Your task to perform on an android device: delete browsing data in the chrome app Image 0: 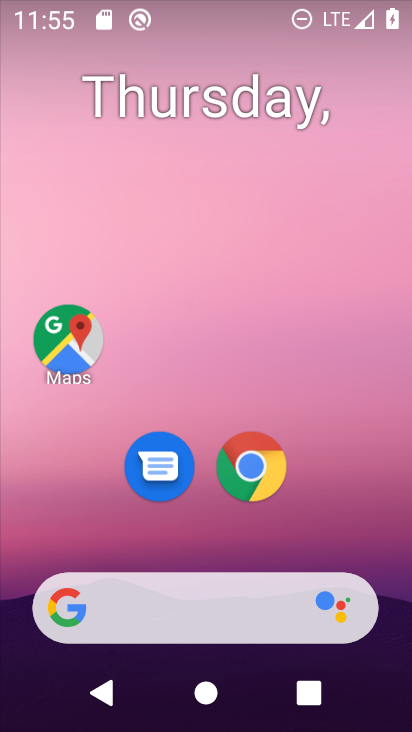
Step 0: drag from (329, 565) to (333, 58)
Your task to perform on an android device: delete browsing data in the chrome app Image 1: 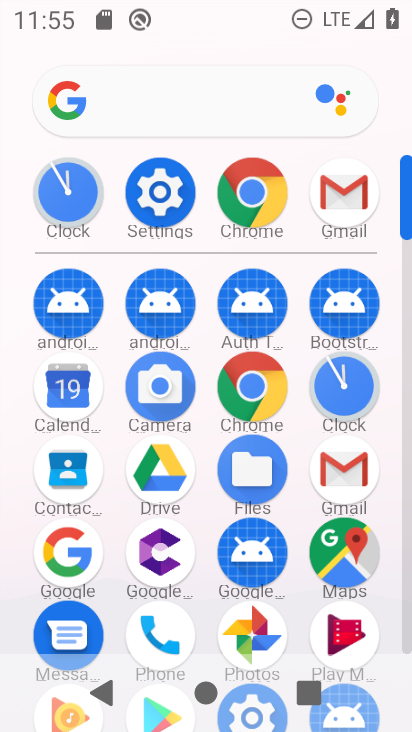
Step 1: click (244, 388)
Your task to perform on an android device: delete browsing data in the chrome app Image 2: 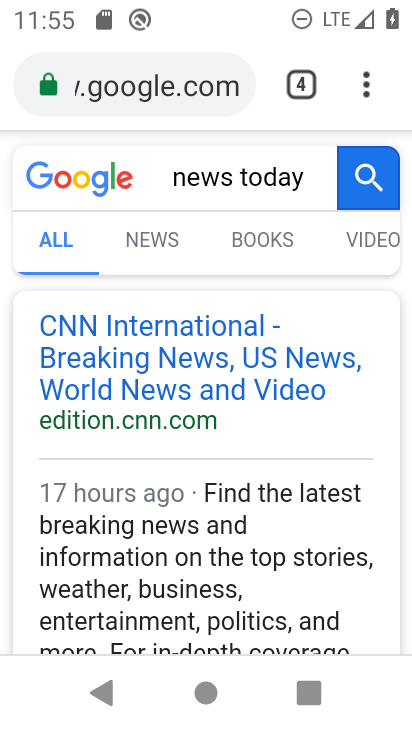
Step 2: drag from (375, 84) to (148, 487)
Your task to perform on an android device: delete browsing data in the chrome app Image 3: 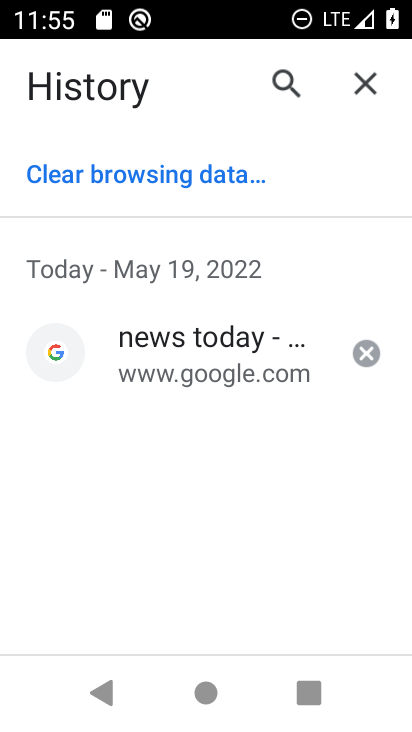
Step 3: drag from (195, 608) to (210, 194)
Your task to perform on an android device: delete browsing data in the chrome app Image 4: 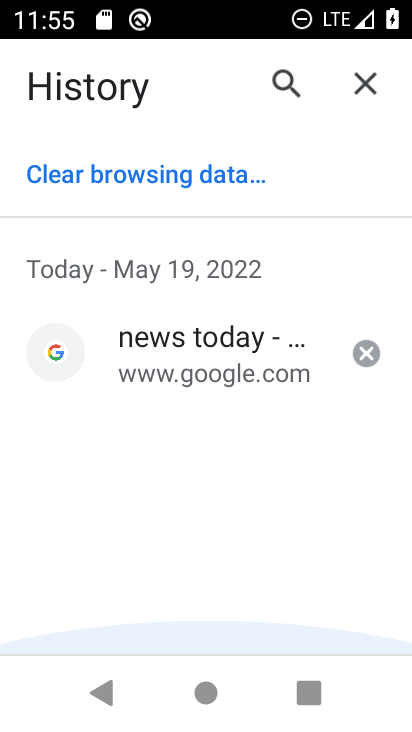
Step 4: click (204, 178)
Your task to perform on an android device: delete browsing data in the chrome app Image 5: 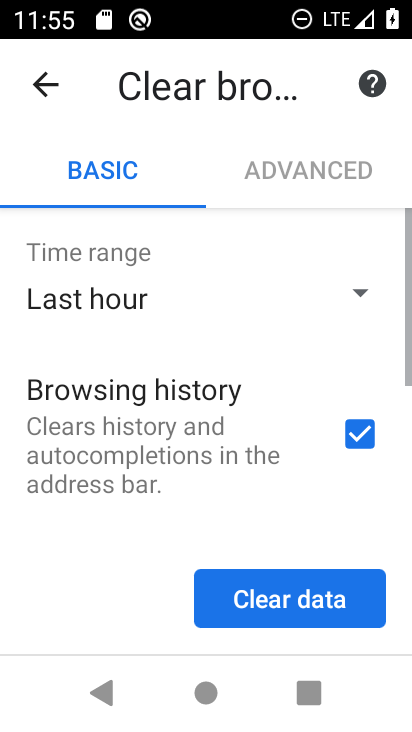
Step 5: click (329, 611)
Your task to perform on an android device: delete browsing data in the chrome app Image 6: 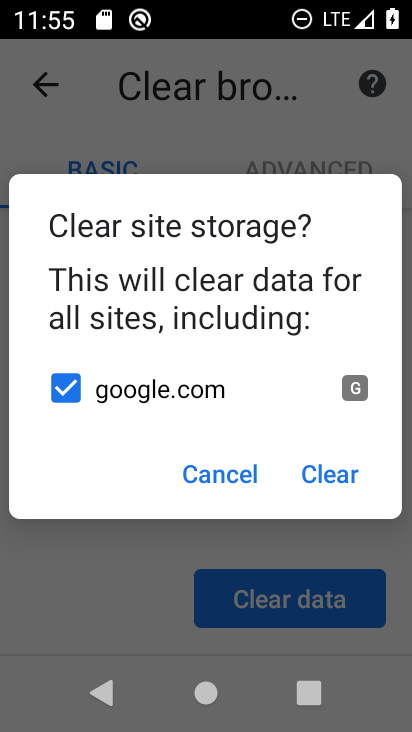
Step 6: click (304, 467)
Your task to perform on an android device: delete browsing data in the chrome app Image 7: 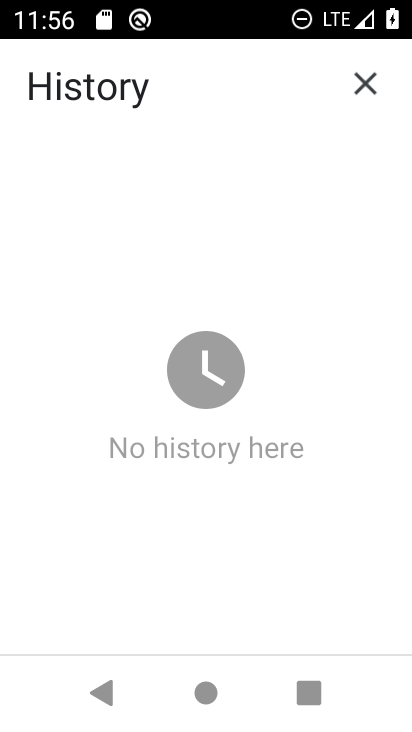
Step 7: task complete